Your task to perform on an android device: Open CNN.com Image 0: 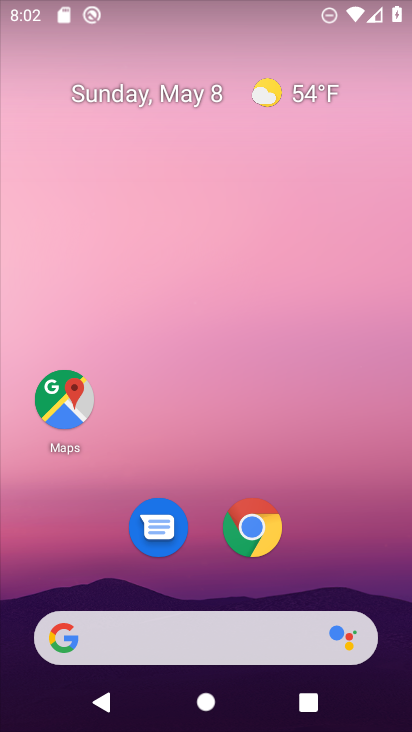
Step 0: drag from (330, 567) to (289, 76)
Your task to perform on an android device: Open CNN.com Image 1: 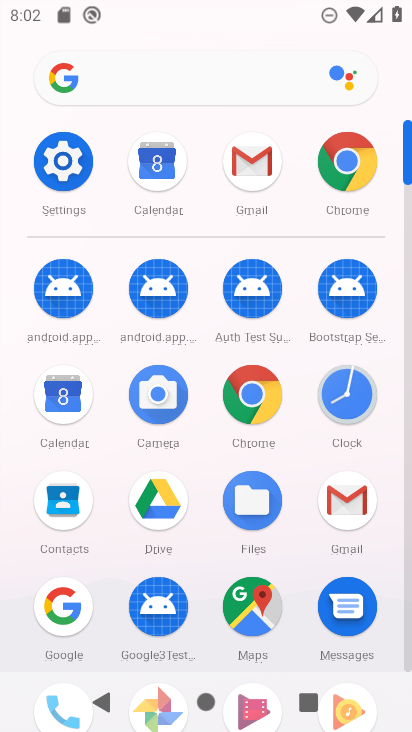
Step 1: click (257, 393)
Your task to perform on an android device: Open CNN.com Image 2: 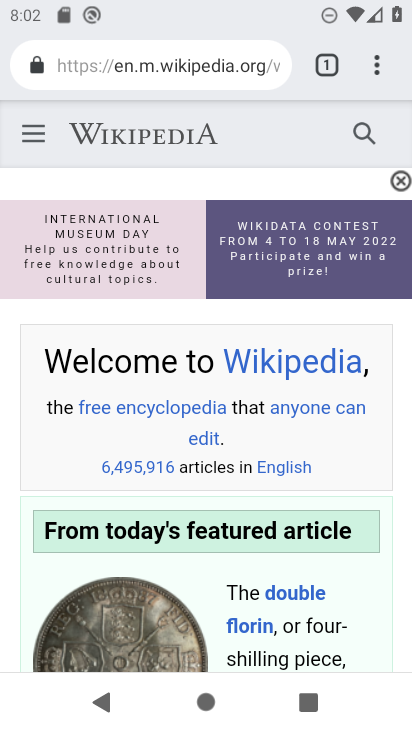
Step 2: click (263, 50)
Your task to perform on an android device: Open CNN.com Image 3: 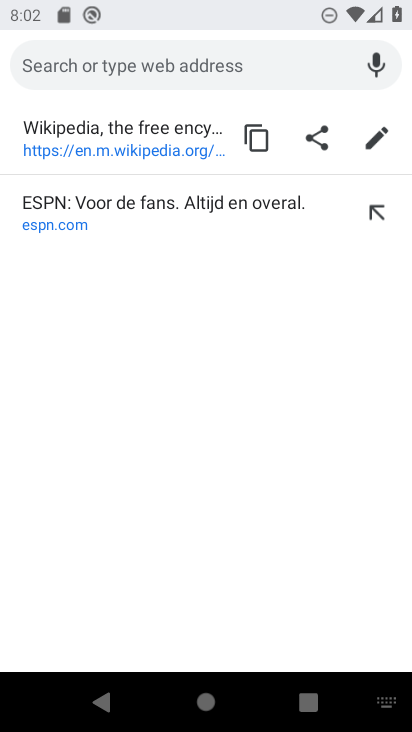
Step 3: type ""
Your task to perform on an android device: Open CNN.com Image 4: 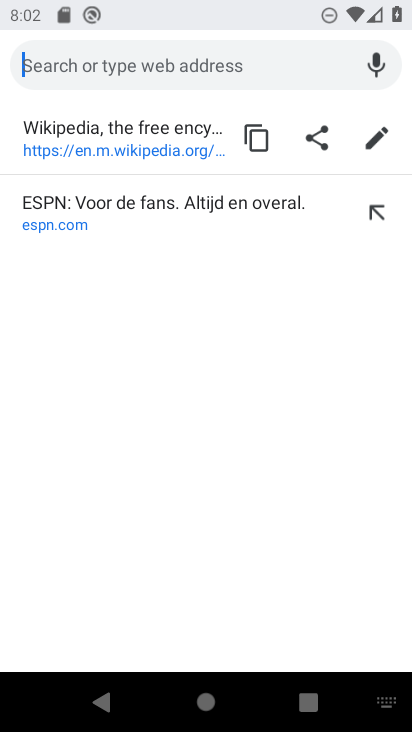
Step 4: type "cnn.com"
Your task to perform on an android device: Open CNN.com Image 5: 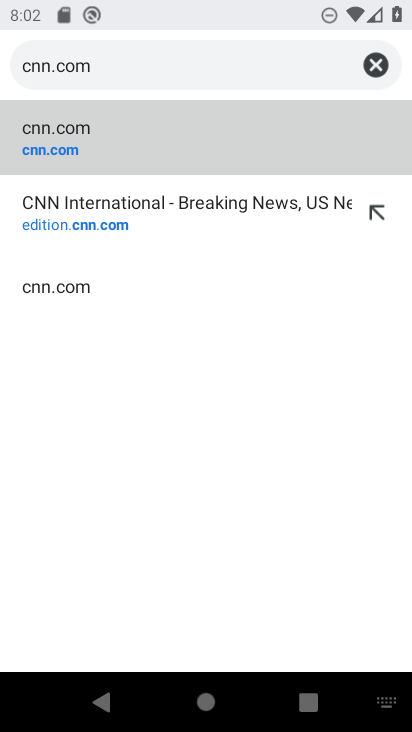
Step 5: click (73, 145)
Your task to perform on an android device: Open CNN.com Image 6: 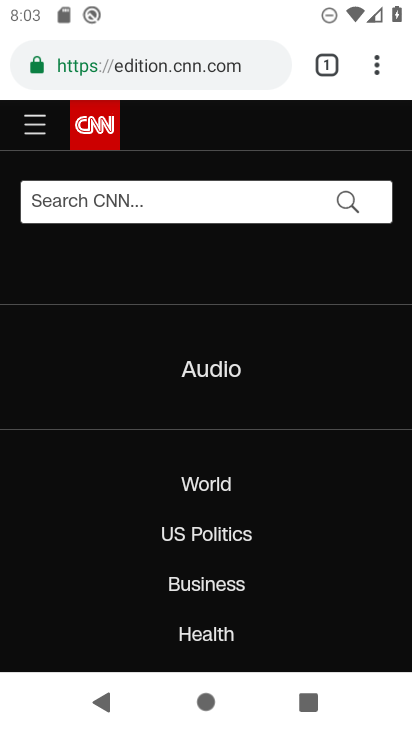
Step 6: task complete